Your task to perform on an android device: Open the stopwatch Image 0: 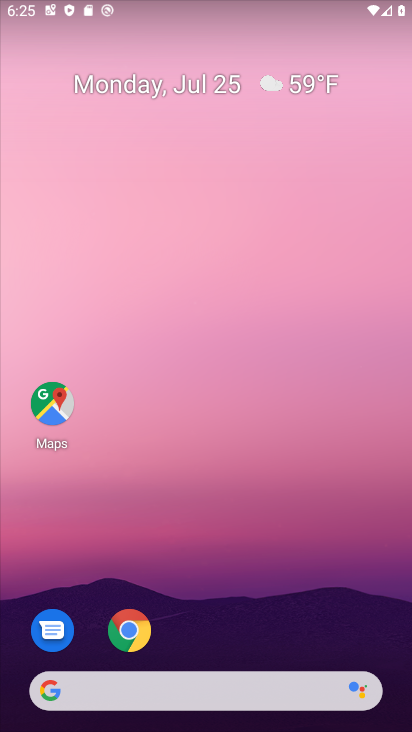
Step 0: drag from (182, 634) to (215, 29)
Your task to perform on an android device: Open the stopwatch Image 1: 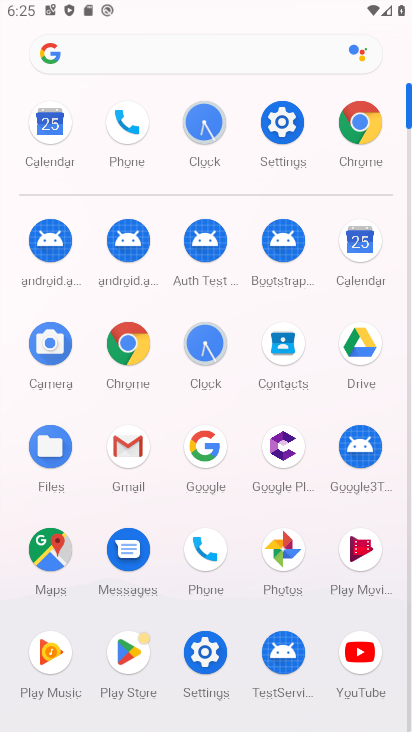
Step 1: click (195, 130)
Your task to perform on an android device: Open the stopwatch Image 2: 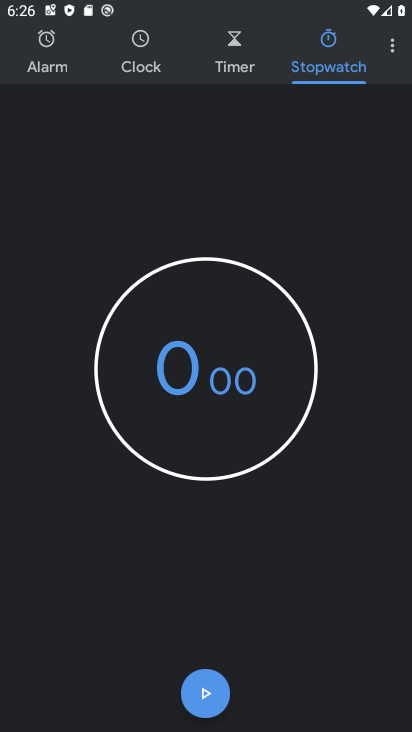
Step 2: task complete